Your task to perform on an android device: turn off priority inbox in the gmail app Image 0: 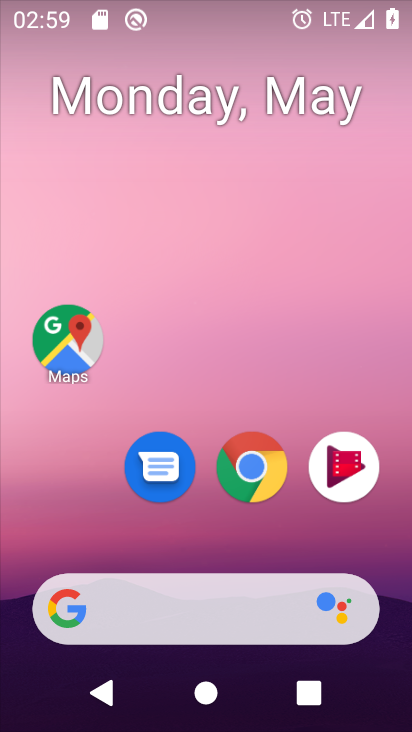
Step 0: drag from (248, 530) to (279, 231)
Your task to perform on an android device: turn off priority inbox in the gmail app Image 1: 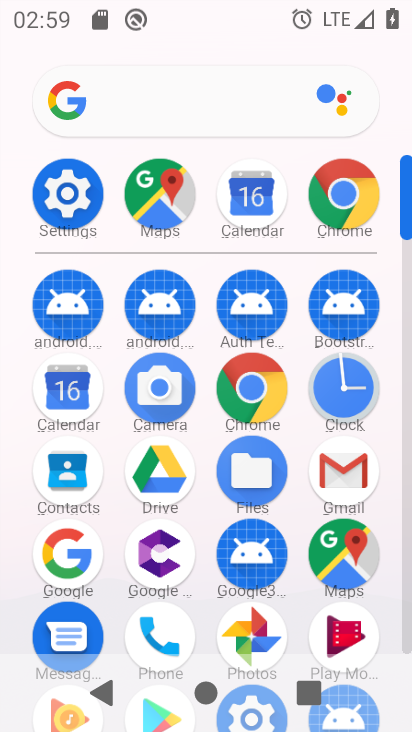
Step 1: click (353, 471)
Your task to perform on an android device: turn off priority inbox in the gmail app Image 2: 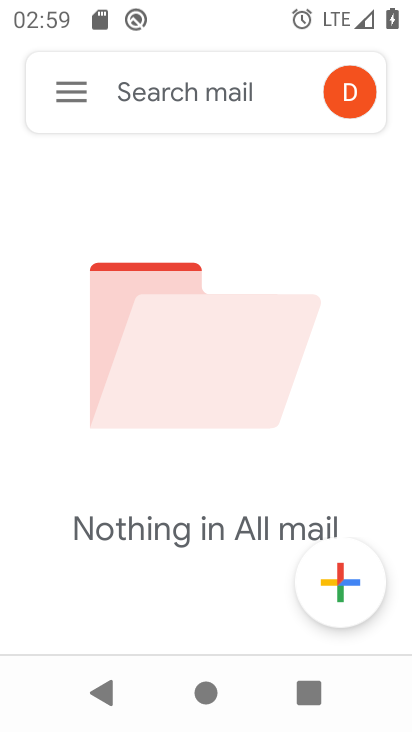
Step 2: click (57, 85)
Your task to perform on an android device: turn off priority inbox in the gmail app Image 3: 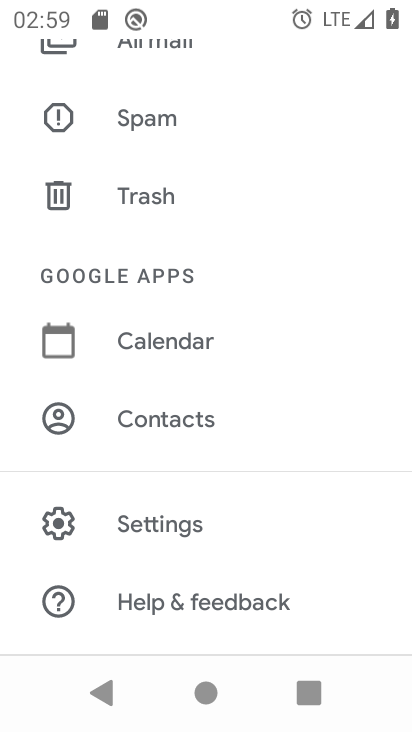
Step 3: drag from (198, 160) to (299, 267)
Your task to perform on an android device: turn off priority inbox in the gmail app Image 4: 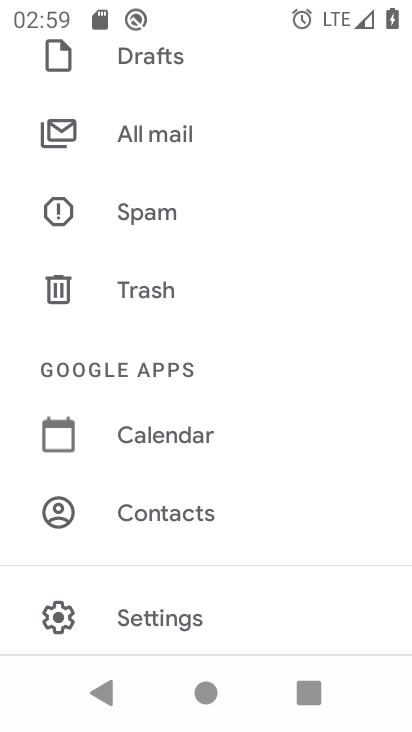
Step 4: click (138, 620)
Your task to perform on an android device: turn off priority inbox in the gmail app Image 5: 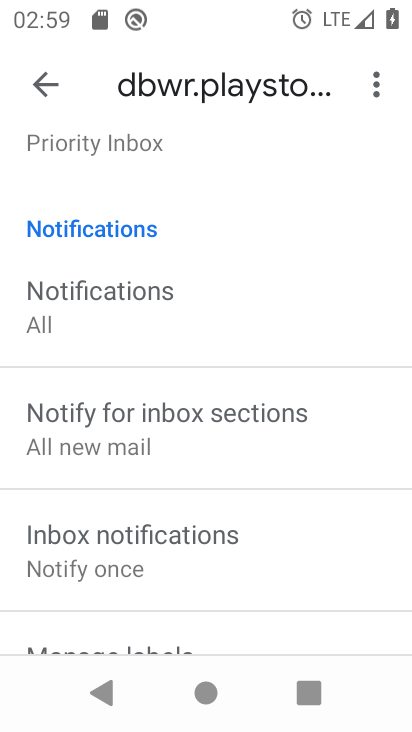
Step 5: drag from (157, 432) to (213, 253)
Your task to perform on an android device: turn off priority inbox in the gmail app Image 6: 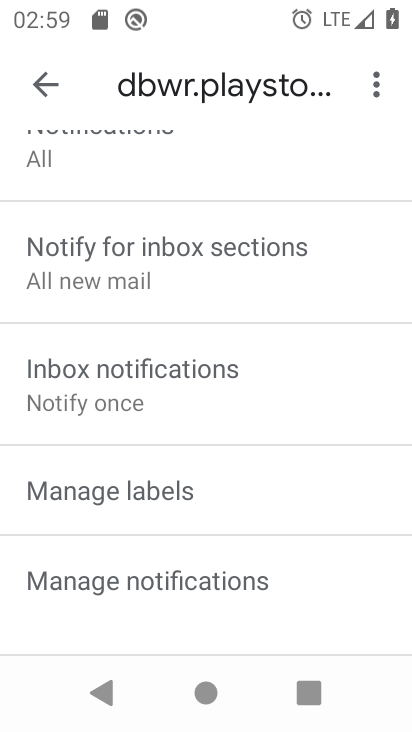
Step 6: drag from (172, 152) to (172, 530)
Your task to perform on an android device: turn off priority inbox in the gmail app Image 7: 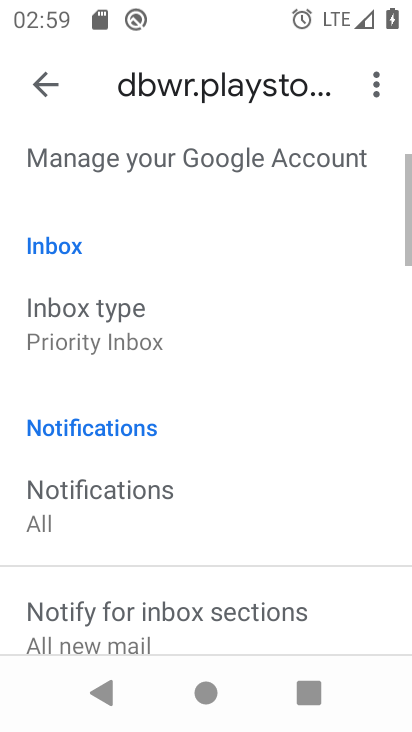
Step 7: click (102, 236)
Your task to perform on an android device: turn off priority inbox in the gmail app Image 8: 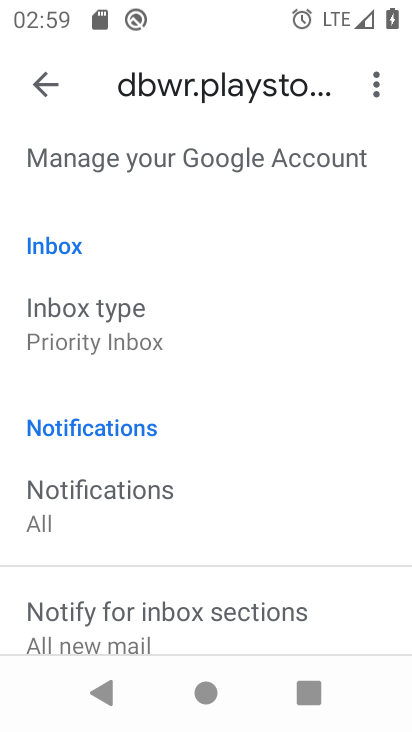
Step 8: click (98, 363)
Your task to perform on an android device: turn off priority inbox in the gmail app Image 9: 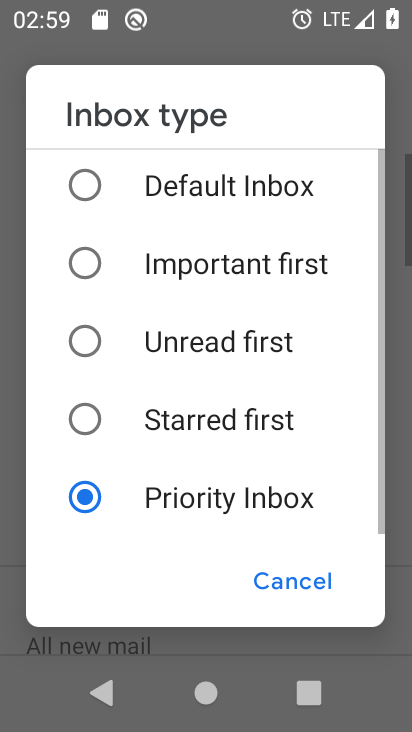
Step 9: click (135, 186)
Your task to perform on an android device: turn off priority inbox in the gmail app Image 10: 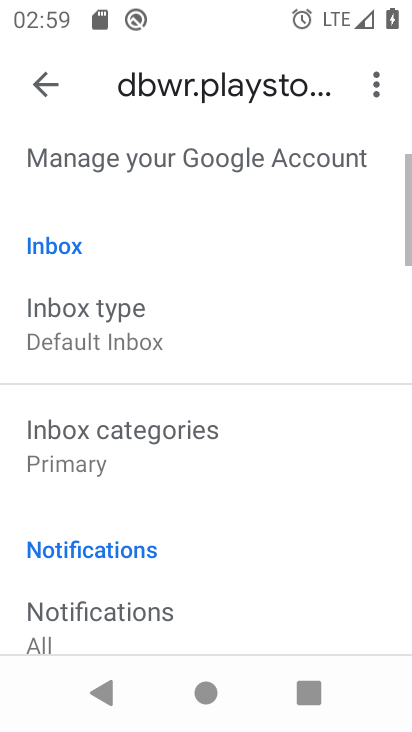
Step 10: task complete